Your task to perform on an android device: turn off smart reply in the gmail app Image 0: 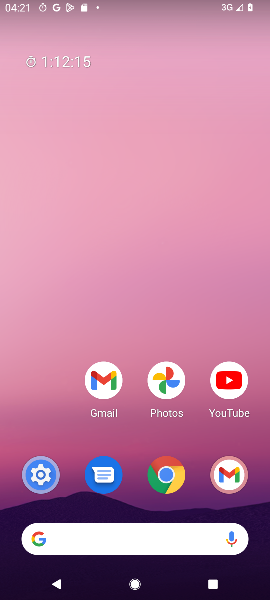
Step 0: press home button
Your task to perform on an android device: turn off smart reply in the gmail app Image 1: 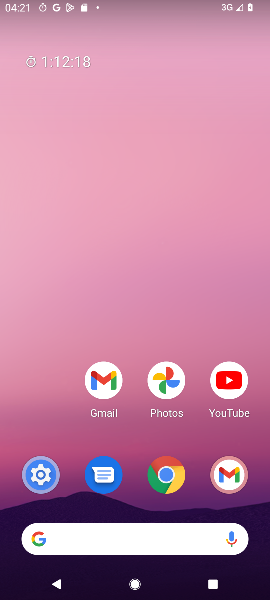
Step 1: drag from (43, 424) to (41, 206)
Your task to perform on an android device: turn off smart reply in the gmail app Image 2: 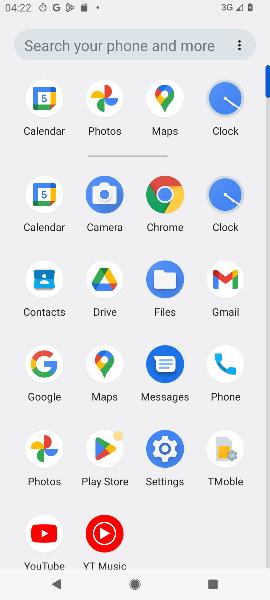
Step 2: click (225, 286)
Your task to perform on an android device: turn off smart reply in the gmail app Image 3: 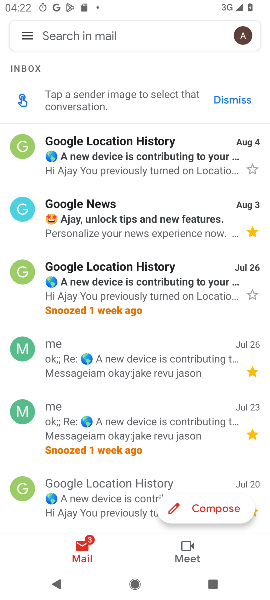
Step 3: click (25, 33)
Your task to perform on an android device: turn off smart reply in the gmail app Image 4: 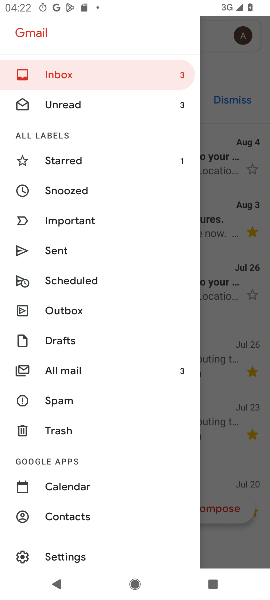
Step 4: drag from (122, 298) to (134, 228)
Your task to perform on an android device: turn off smart reply in the gmail app Image 5: 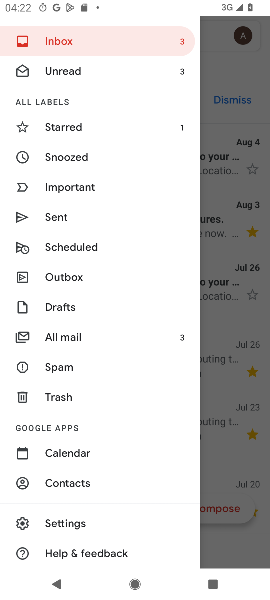
Step 5: drag from (136, 325) to (145, 230)
Your task to perform on an android device: turn off smart reply in the gmail app Image 6: 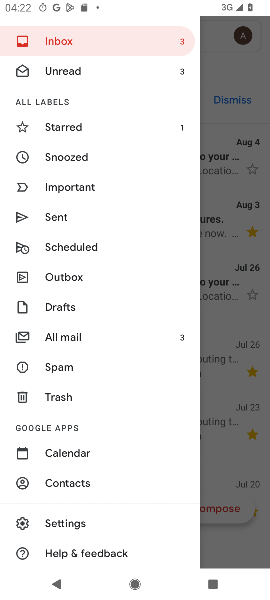
Step 6: click (90, 530)
Your task to perform on an android device: turn off smart reply in the gmail app Image 7: 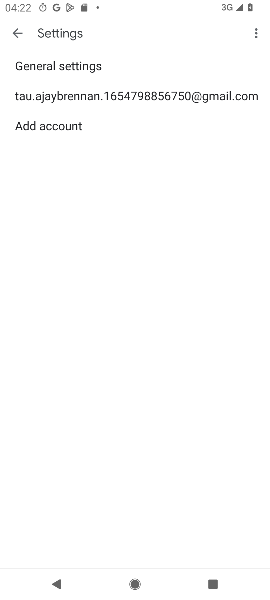
Step 7: click (173, 95)
Your task to perform on an android device: turn off smart reply in the gmail app Image 8: 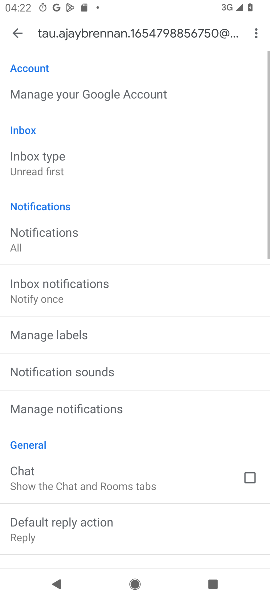
Step 8: drag from (185, 327) to (189, 264)
Your task to perform on an android device: turn off smart reply in the gmail app Image 9: 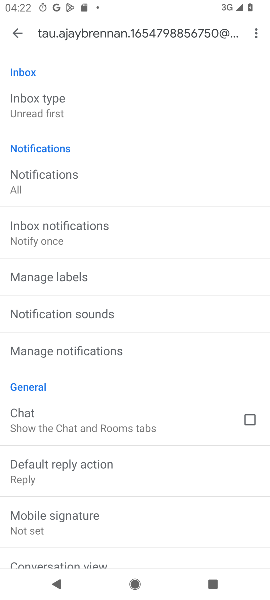
Step 9: drag from (191, 379) to (201, 302)
Your task to perform on an android device: turn off smart reply in the gmail app Image 10: 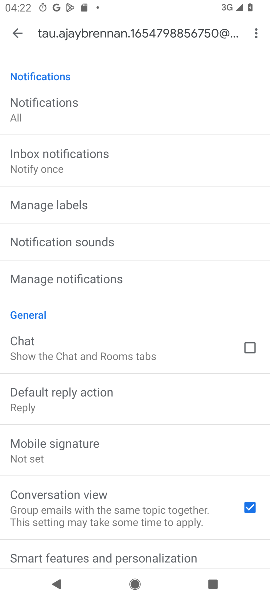
Step 10: drag from (183, 427) to (184, 364)
Your task to perform on an android device: turn off smart reply in the gmail app Image 11: 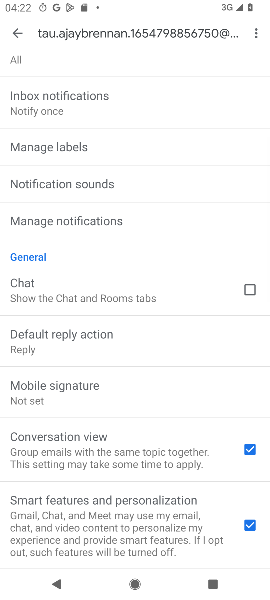
Step 11: drag from (173, 443) to (174, 356)
Your task to perform on an android device: turn off smart reply in the gmail app Image 12: 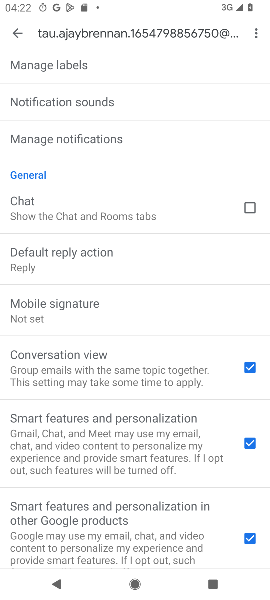
Step 12: drag from (151, 485) to (158, 357)
Your task to perform on an android device: turn off smart reply in the gmail app Image 13: 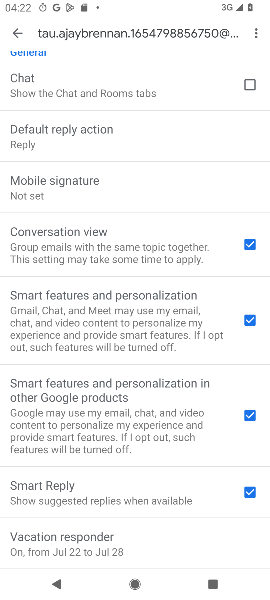
Step 13: drag from (136, 479) to (141, 426)
Your task to perform on an android device: turn off smart reply in the gmail app Image 14: 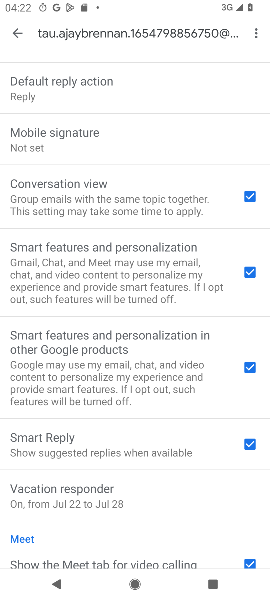
Step 14: click (249, 445)
Your task to perform on an android device: turn off smart reply in the gmail app Image 15: 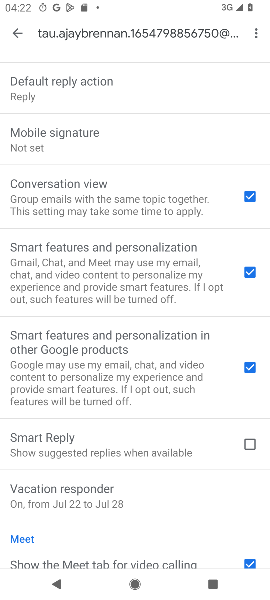
Step 15: task complete